Your task to perform on an android device: change the clock display to show seconds Image 0: 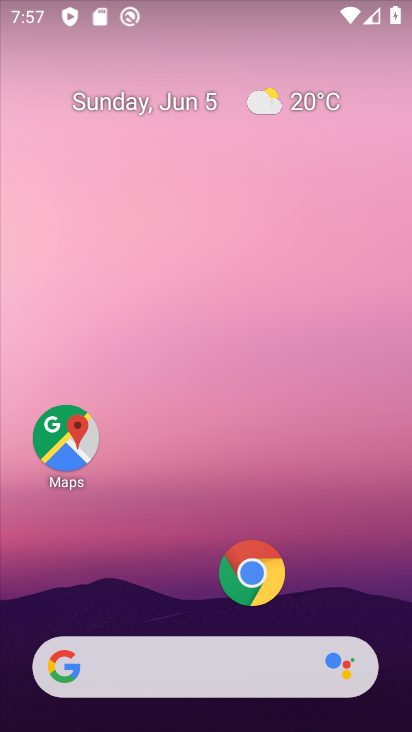
Step 0: drag from (187, 623) to (168, 83)
Your task to perform on an android device: change the clock display to show seconds Image 1: 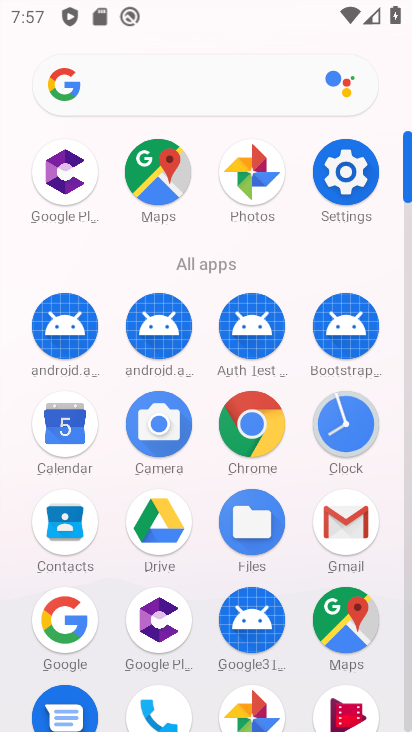
Step 1: click (353, 415)
Your task to perform on an android device: change the clock display to show seconds Image 2: 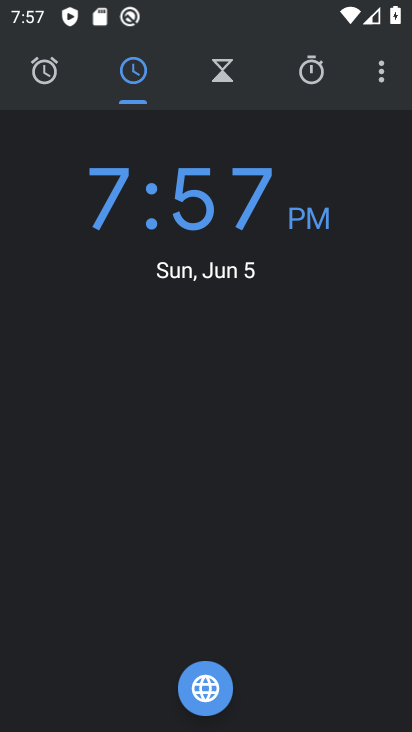
Step 2: click (376, 76)
Your task to perform on an android device: change the clock display to show seconds Image 3: 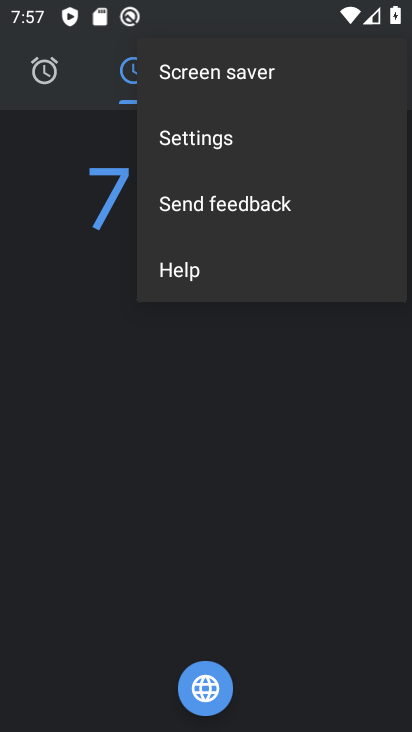
Step 3: click (200, 143)
Your task to perform on an android device: change the clock display to show seconds Image 4: 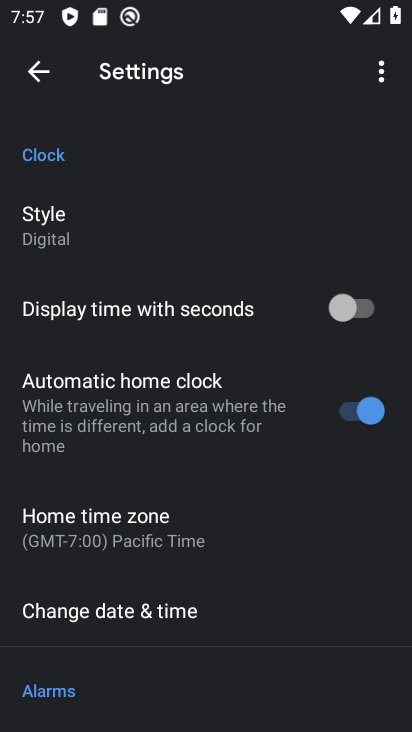
Step 4: click (356, 307)
Your task to perform on an android device: change the clock display to show seconds Image 5: 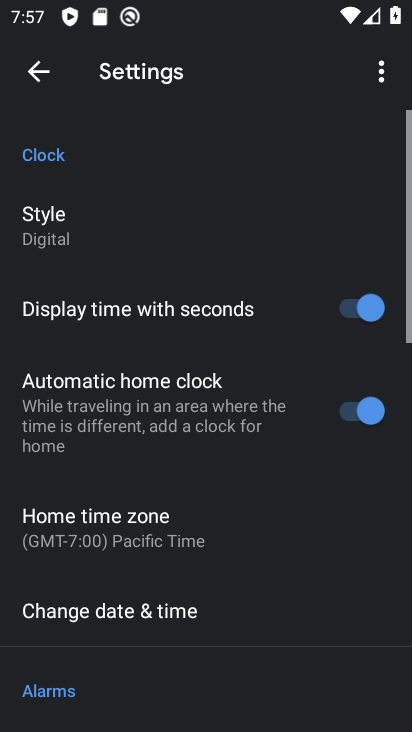
Step 5: task complete